Your task to perform on an android device: turn on improve location accuracy Image 0: 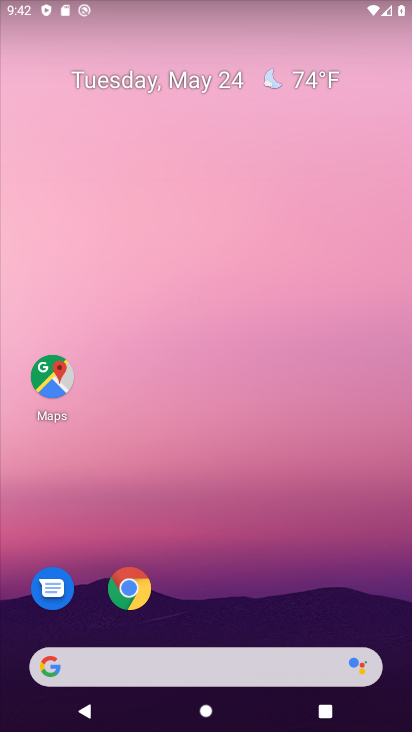
Step 0: drag from (241, 613) to (157, 163)
Your task to perform on an android device: turn on improve location accuracy Image 1: 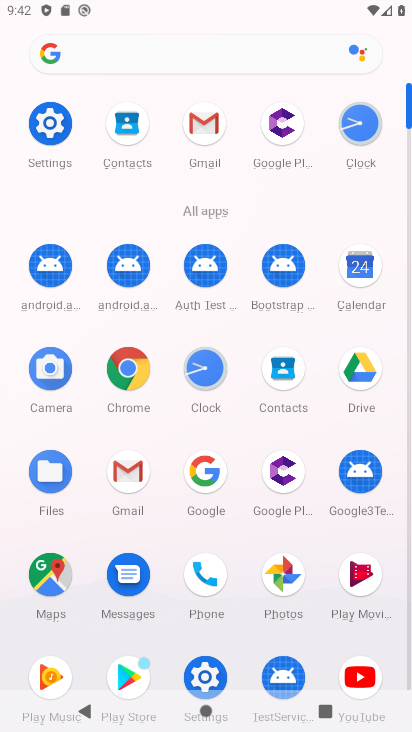
Step 1: click (69, 134)
Your task to perform on an android device: turn on improve location accuracy Image 2: 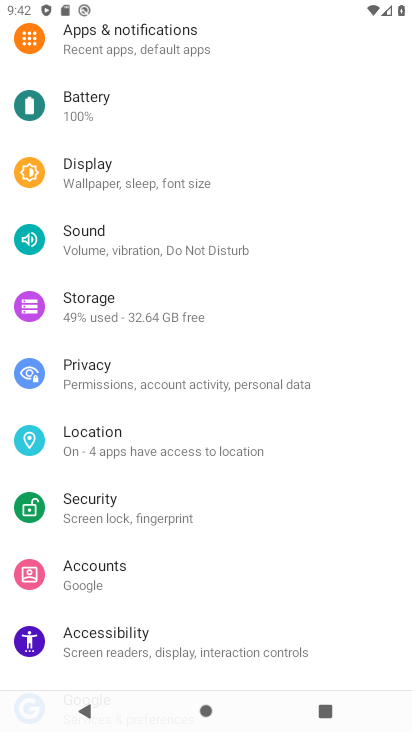
Step 2: click (134, 454)
Your task to perform on an android device: turn on improve location accuracy Image 3: 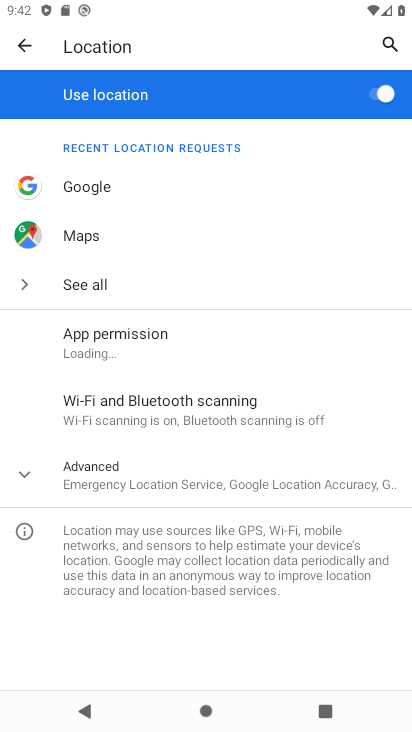
Step 3: click (95, 470)
Your task to perform on an android device: turn on improve location accuracy Image 4: 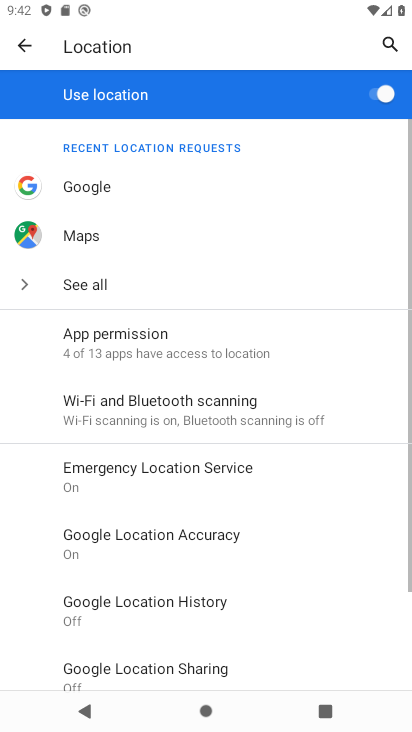
Step 4: click (121, 530)
Your task to perform on an android device: turn on improve location accuracy Image 5: 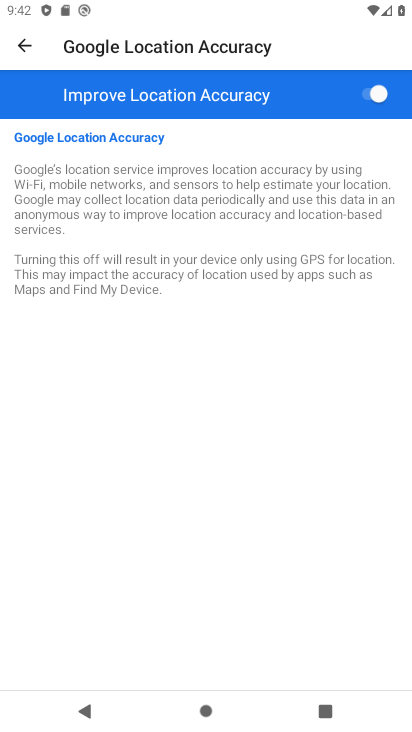
Step 5: task complete